Your task to perform on an android device: Open Wikipedia Image 0: 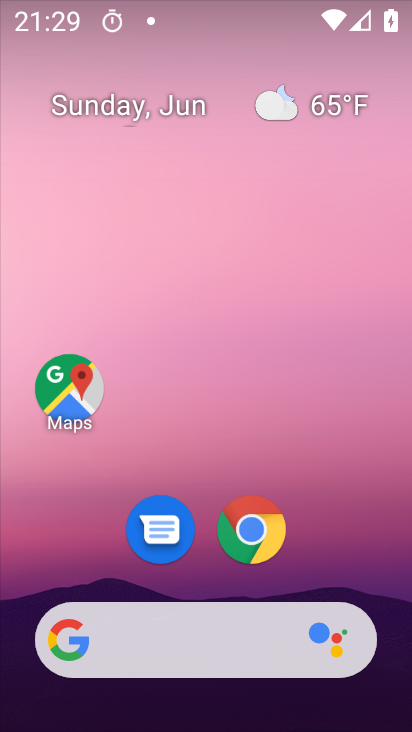
Step 0: drag from (206, 578) to (191, 46)
Your task to perform on an android device: Open Wikipedia Image 1: 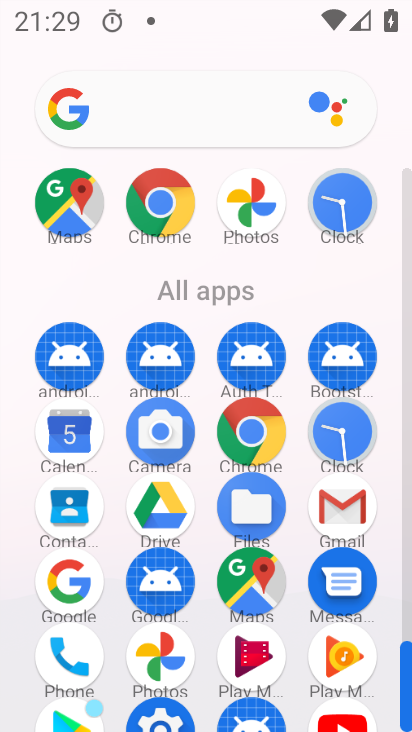
Step 1: click (159, 201)
Your task to perform on an android device: Open Wikipedia Image 2: 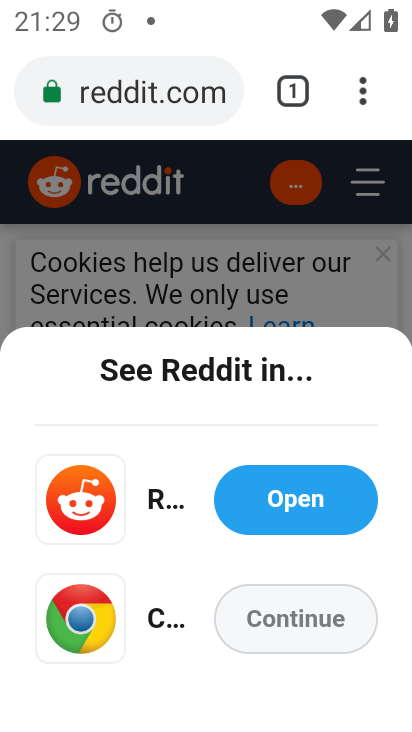
Step 2: click (126, 87)
Your task to perform on an android device: Open Wikipedia Image 3: 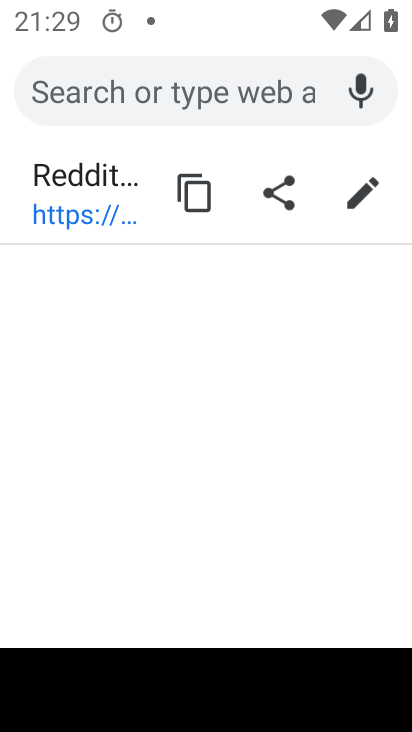
Step 3: type "wikipedia"
Your task to perform on an android device: Open Wikipedia Image 4: 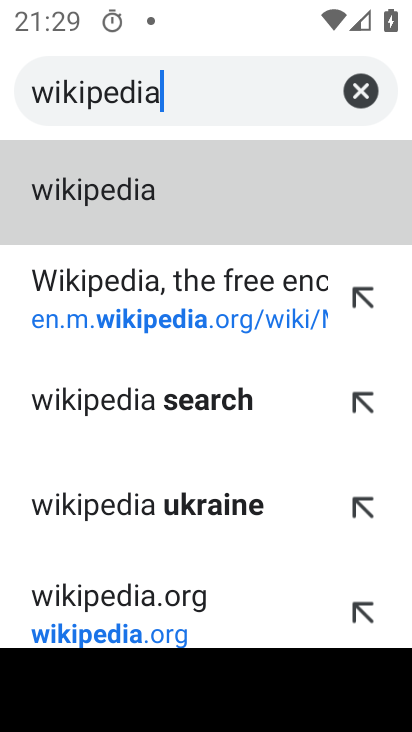
Step 4: click (285, 207)
Your task to perform on an android device: Open Wikipedia Image 5: 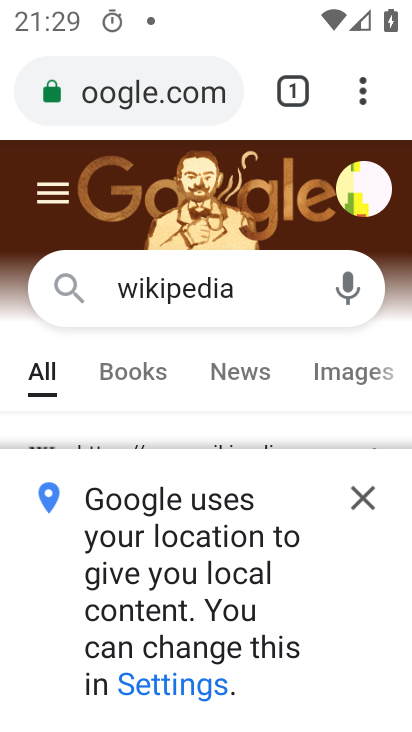
Step 5: click (357, 497)
Your task to perform on an android device: Open Wikipedia Image 6: 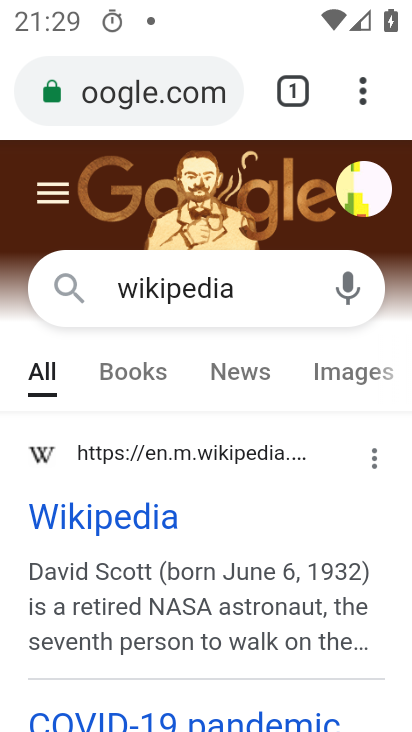
Step 6: click (54, 524)
Your task to perform on an android device: Open Wikipedia Image 7: 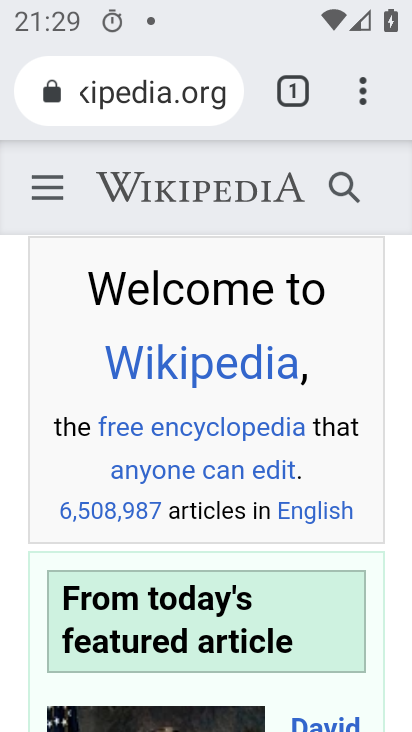
Step 7: task complete